Your task to perform on an android device: read, delete, or share a saved page in the chrome app Image 0: 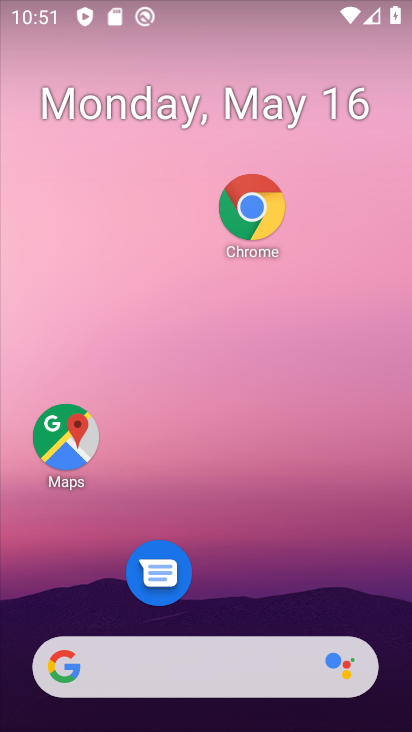
Step 0: drag from (288, 453) to (260, 16)
Your task to perform on an android device: read, delete, or share a saved page in the chrome app Image 1: 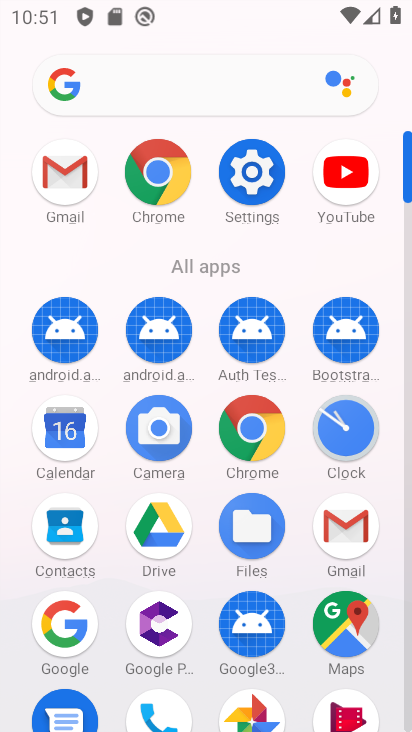
Step 1: click (259, 404)
Your task to perform on an android device: read, delete, or share a saved page in the chrome app Image 2: 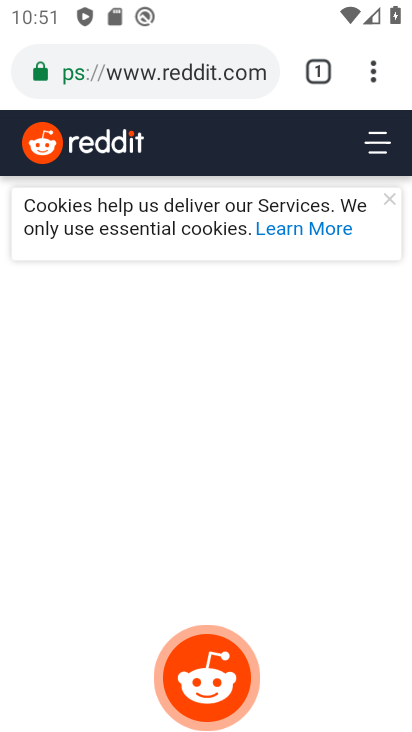
Step 2: click (381, 70)
Your task to perform on an android device: read, delete, or share a saved page in the chrome app Image 3: 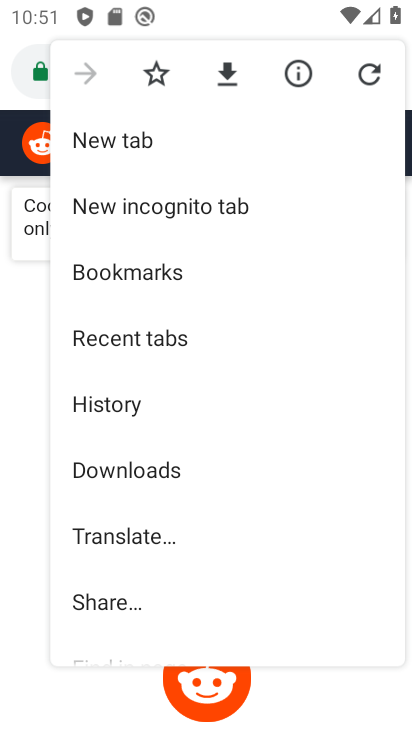
Step 3: click (112, 476)
Your task to perform on an android device: read, delete, or share a saved page in the chrome app Image 4: 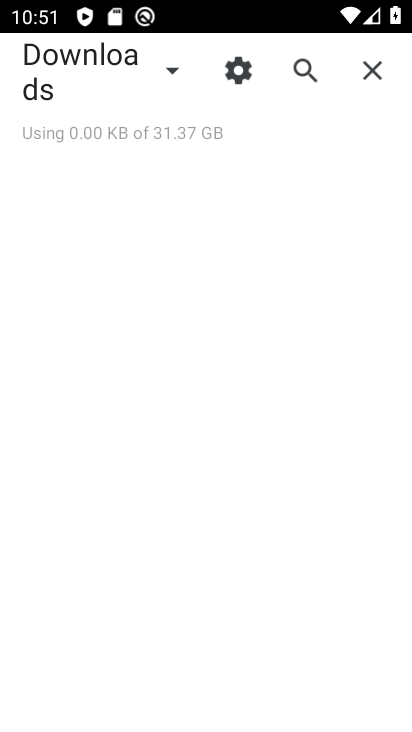
Step 4: task complete